Your task to perform on an android device: refresh tabs in the chrome app Image 0: 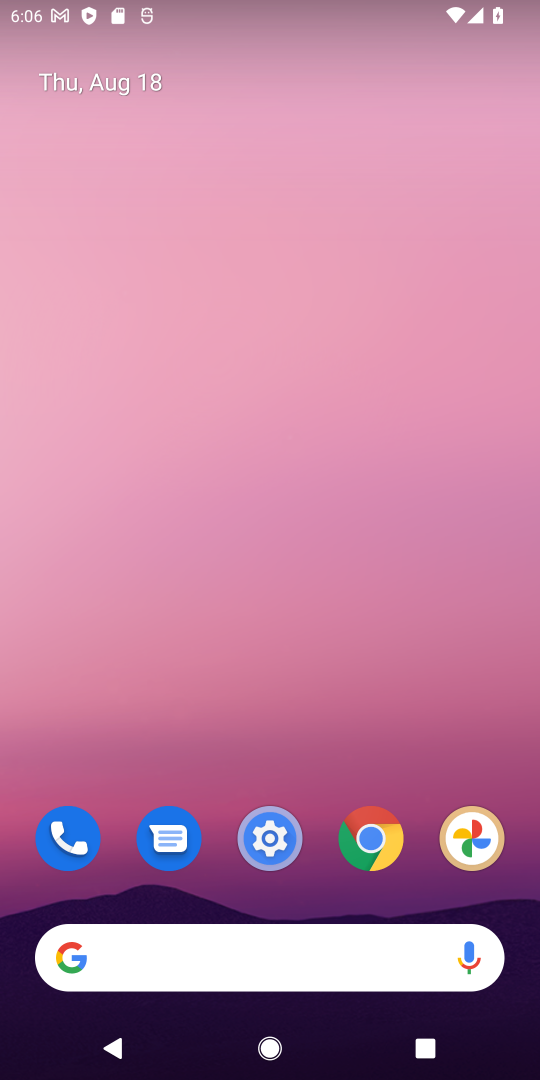
Step 0: press home button
Your task to perform on an android device: refresh tabs in the chrome app Image 1: 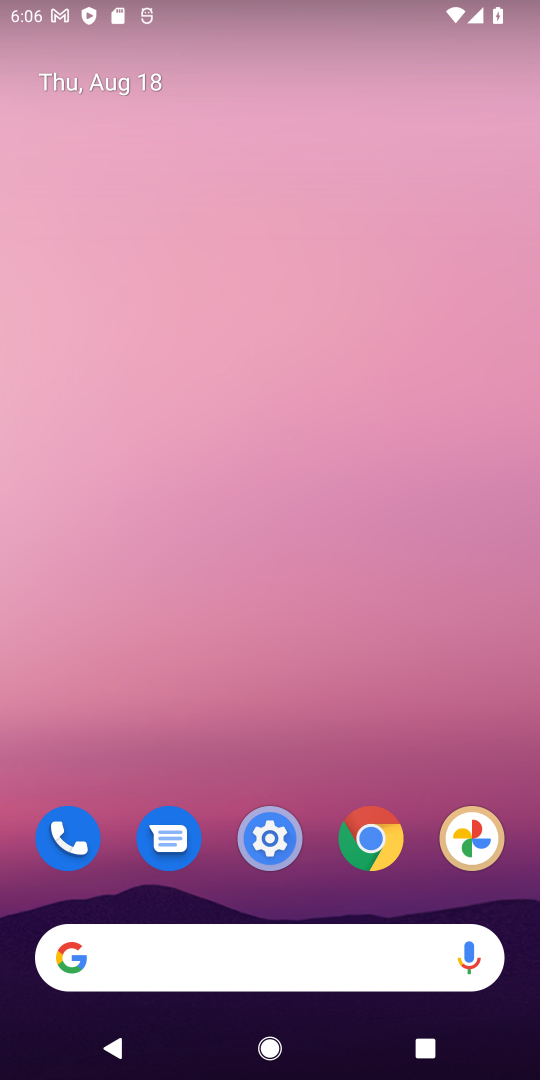
Step 1: click (379, 842)
Your task to perform on an android device: refresh tabs in the chrome app Image 2: 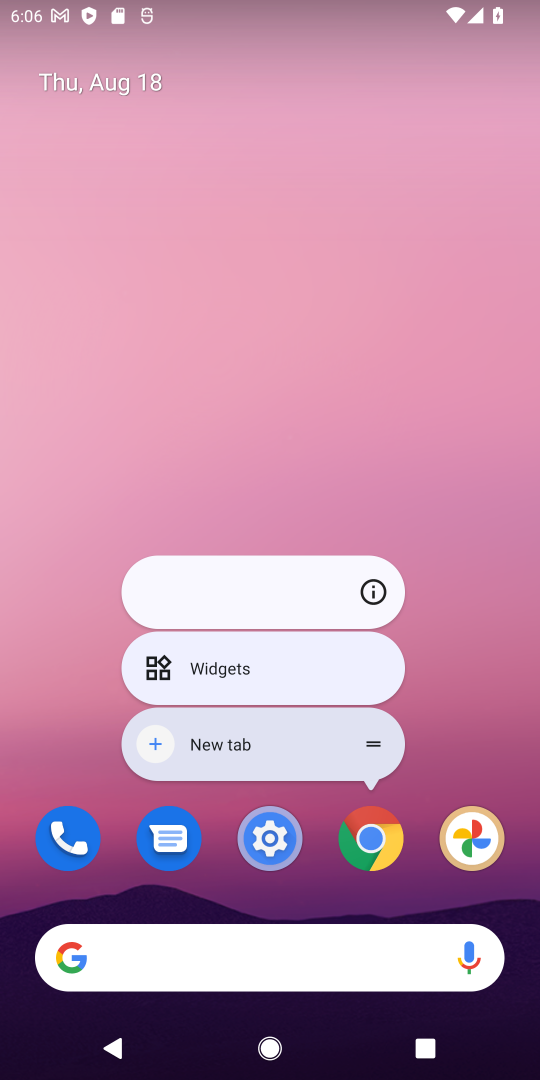
Step 2: click (379, 842)
Your task to perform on an android device: refresh tabs in the chrome app Image 3: 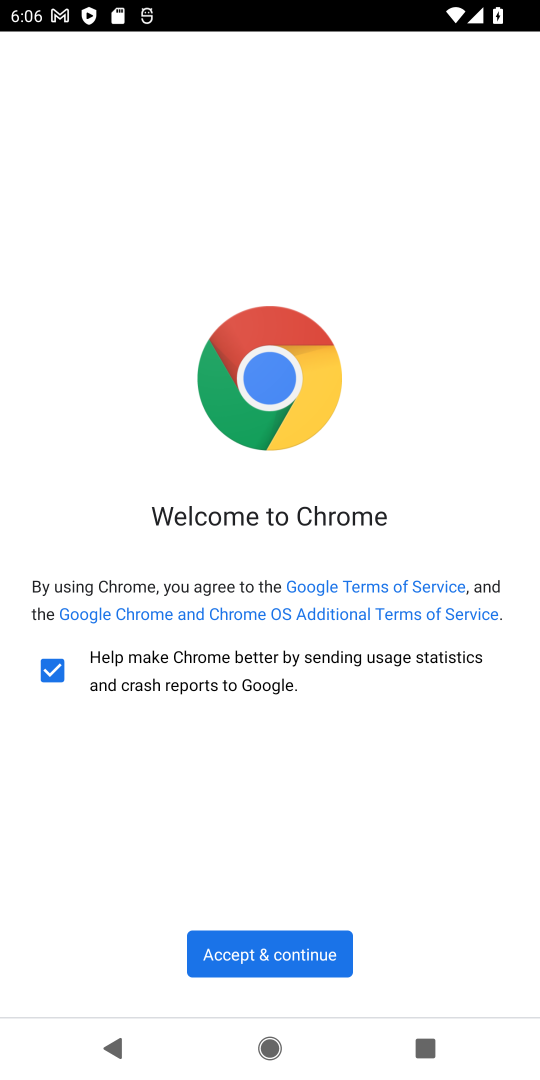
Step 3: click (248, 965)
Your task to perform on an android device: refresh tabs in the chrome app Image 4: 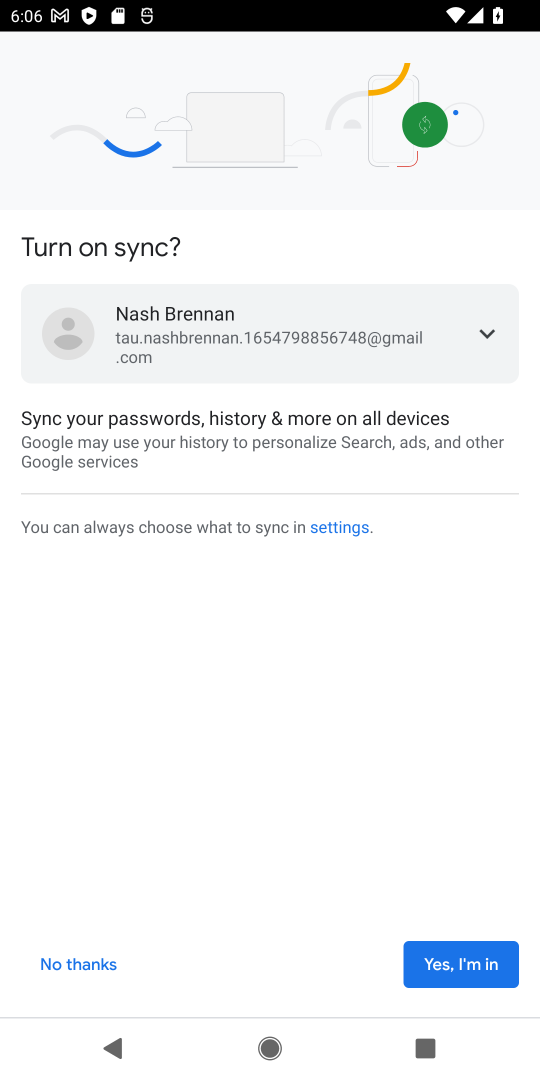
Step 4: click (455, 963)
Your task to perform on an android device: refresh tabs in the chrome app Image 5: 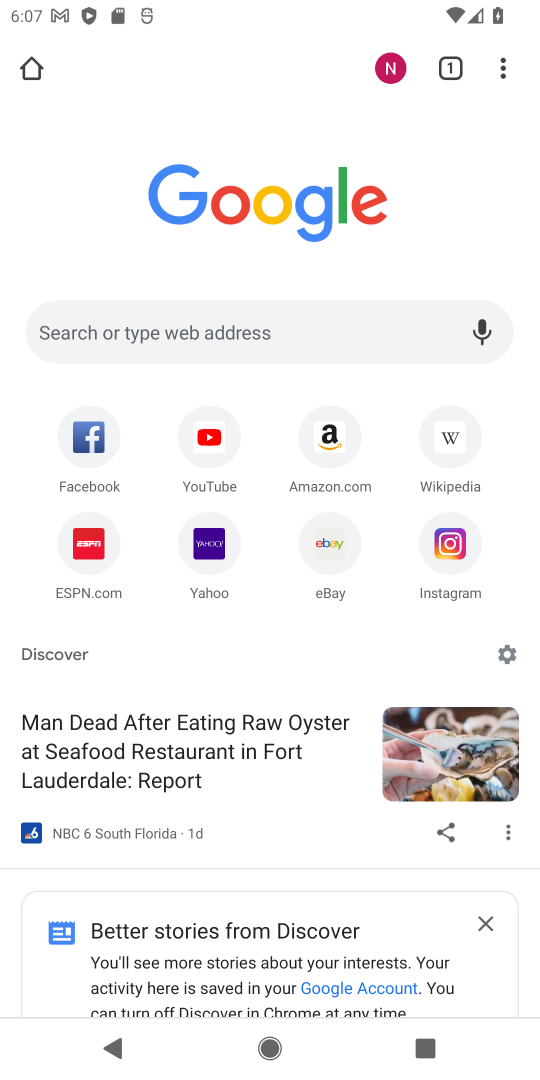
Step 5: click (504, 73)
Your task to perform on an android device: refresh tabs in the chrome app Image 6: 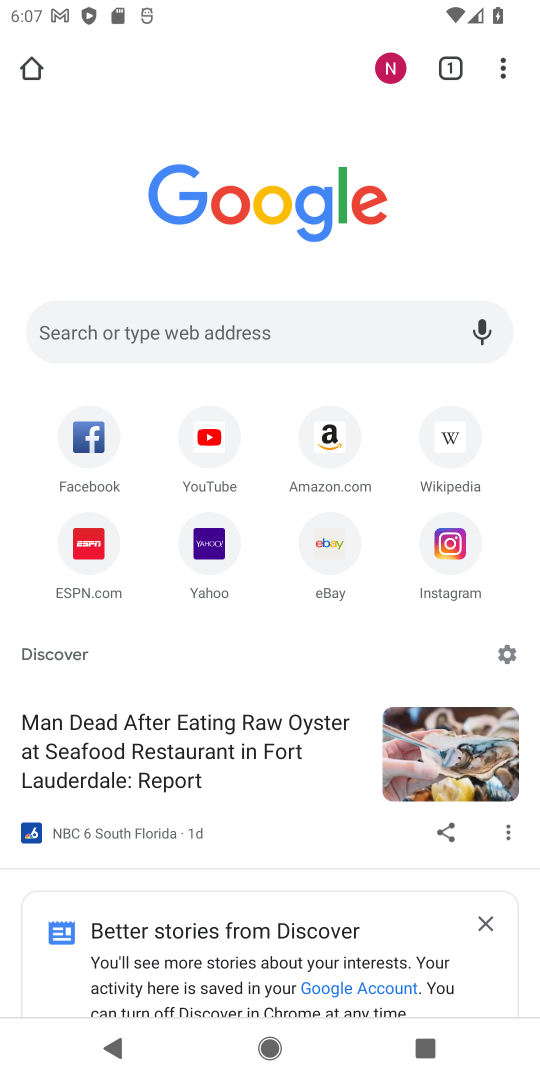
Step 6: task complete